Your task to perform on an android device: open wifi settings Image 0: 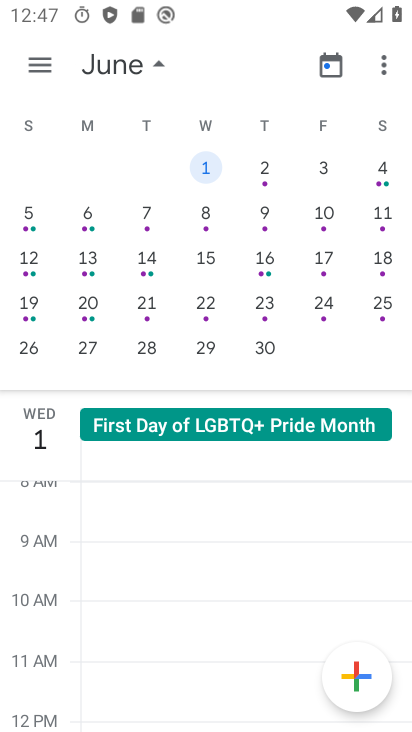
Step 0: press back button
Your task to perform on an android device: open wifi settings Image 1: 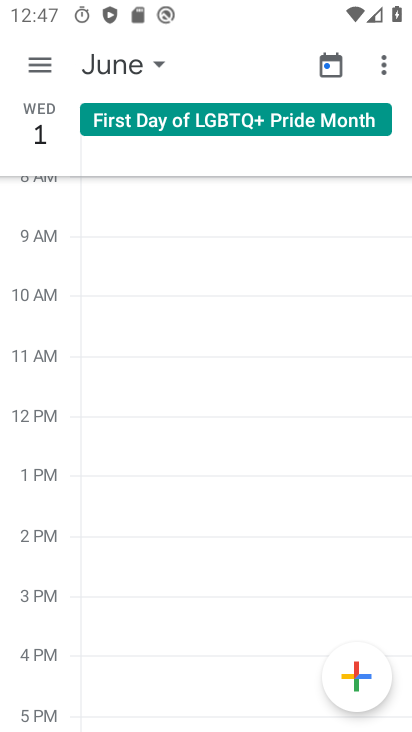
Step 1: press back button
Your task to perform on an android device: open wifi settings Image 2: 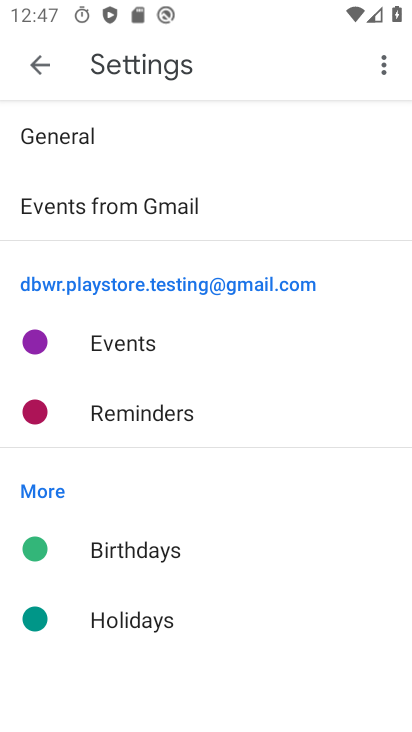
Step 2: press back button
Your task to perform on an android device: open wifi settings Image 3: 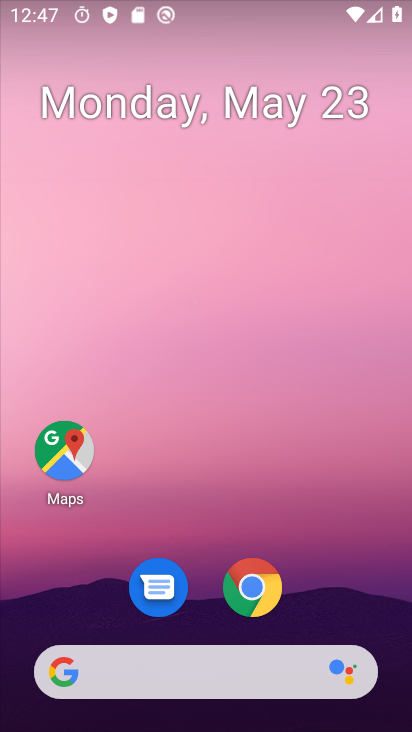
Step 3: drag from (173, 51) to (174, 517)
Your task to perform on an android device: open wifi settings Image 4: 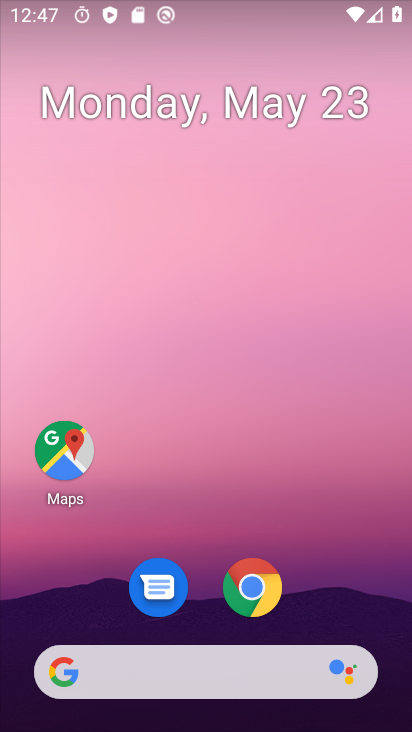
Step 4: drag from (123, 11) to (194, 573)
Your task to perform on an android device: open wifi settings Image 5: 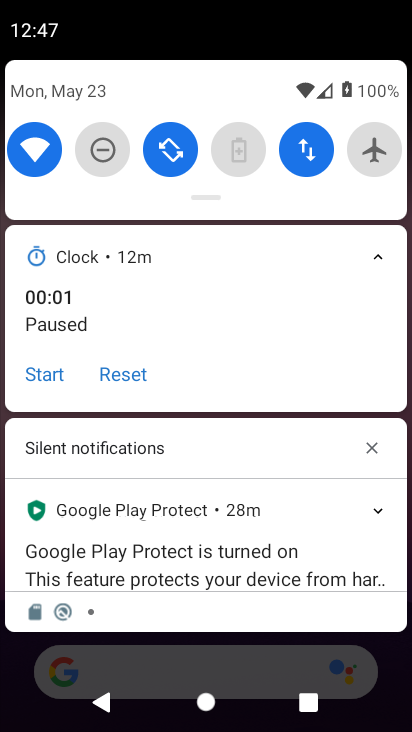
Step 5: click (31, 150)
Your task to perform on an android device: open wifi settings Image 6: 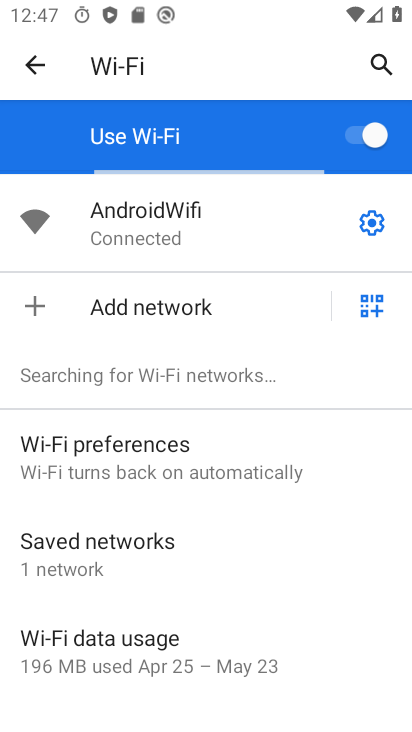
Step 6: task complete